Your task to perform on an android device: see tabs open on other devices in the chrome app Image 0: 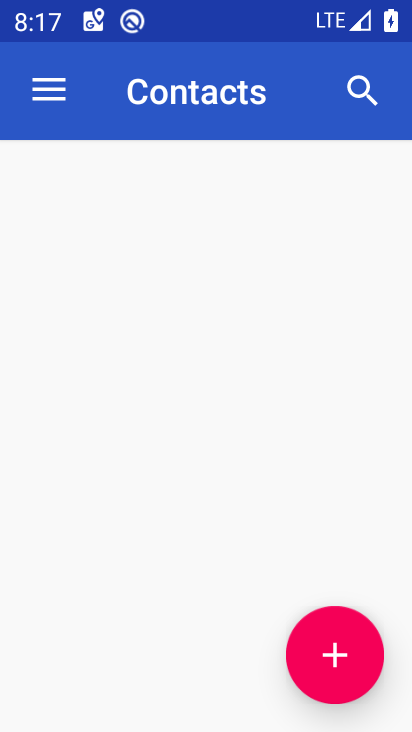
Step 0: press home button
Your task to perform on an android device: see tabs open on other devices in the chrome app Image 1: 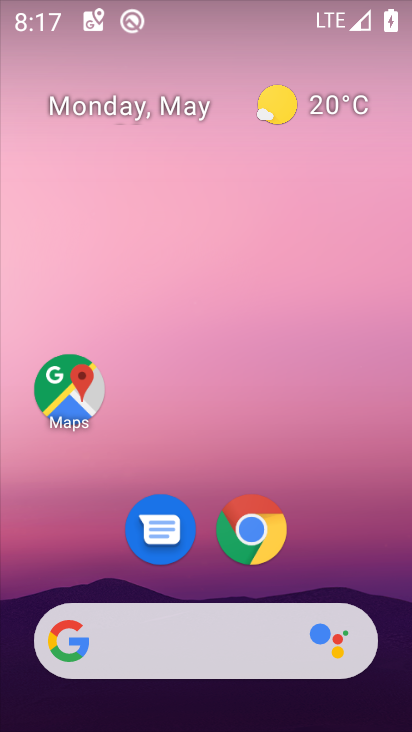
Step 1: click (251, 536)
Your task to perform on an android device: see tabs open on other devices in the chrome app Image 2: 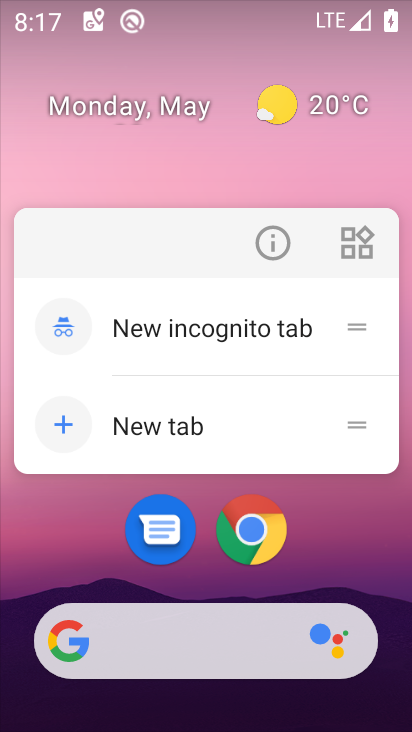
Step 2: click (214, 482)
Your task to perform on an android device: see tabs open on other devices in the chrome app Image 3: 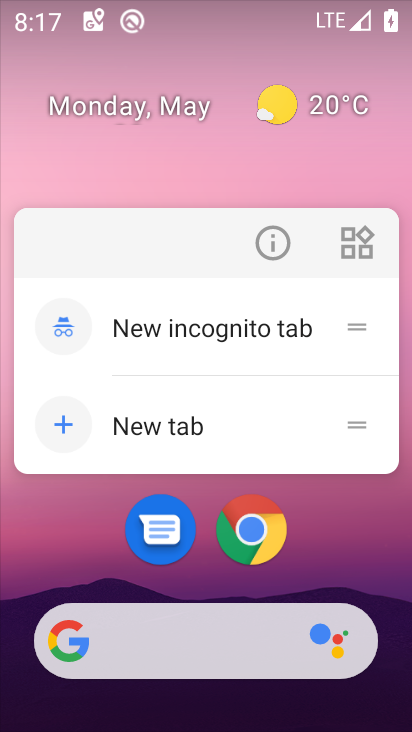
Step 3: click (235, 540)
Your task to perform on an android device: see tabs open on other devices in the chrome app Image 4: 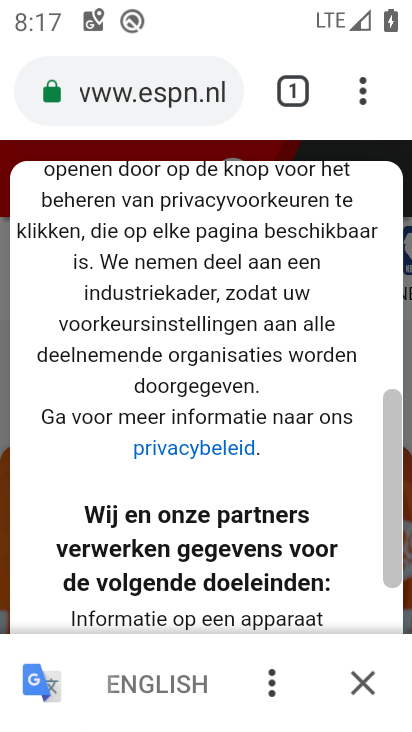
Step 4: task complete